Your task to perform on an android device: Open calendar and show me the fourth week of next month Image 0: 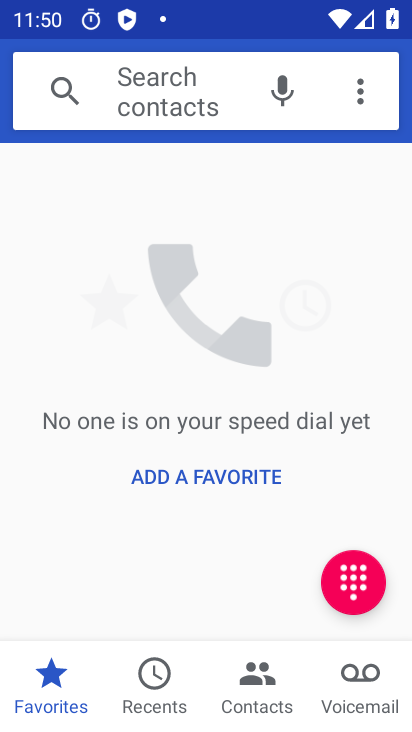
Step 0: press home button
Your task to perform on an android device: Open calendar and show me the fourth week of next month Image 1: 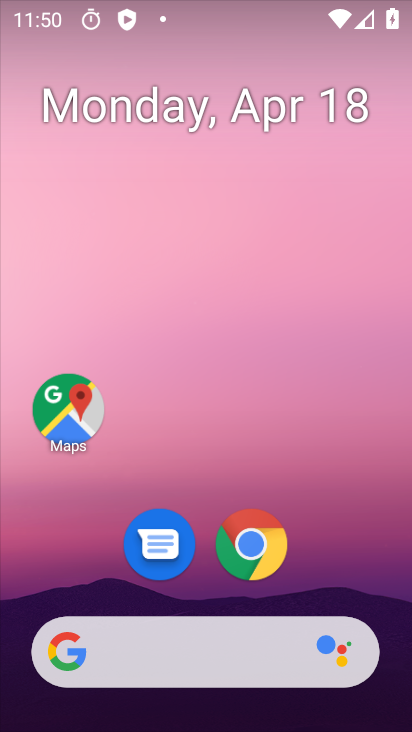
Step 1: drag from (367, 589) to (384, 42)
Your task to perform on an android device: Open calendar and show me the fourth week of next month Image 2: 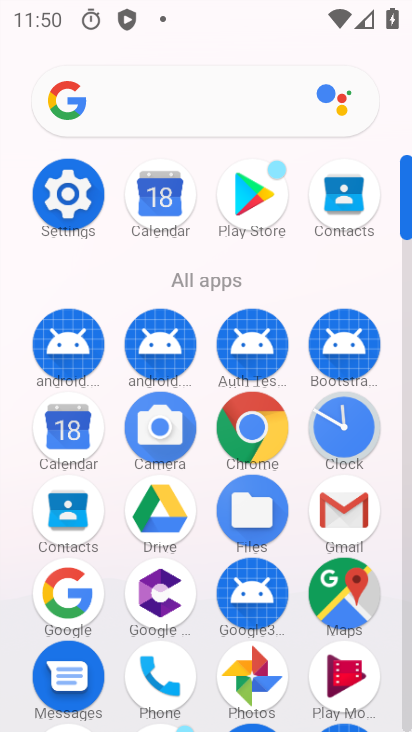
Step 2: click (163, 194)
Your task to perform on an android device: Open calendar and show me the fourth week of next month Image 3: 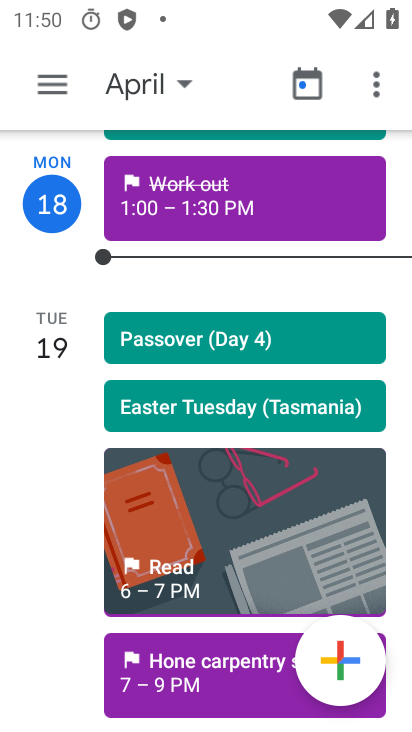
Step 3: click (186, 84)
Your task to perform on an android device: Open calendar and show me the fourth week of next month Image 4: 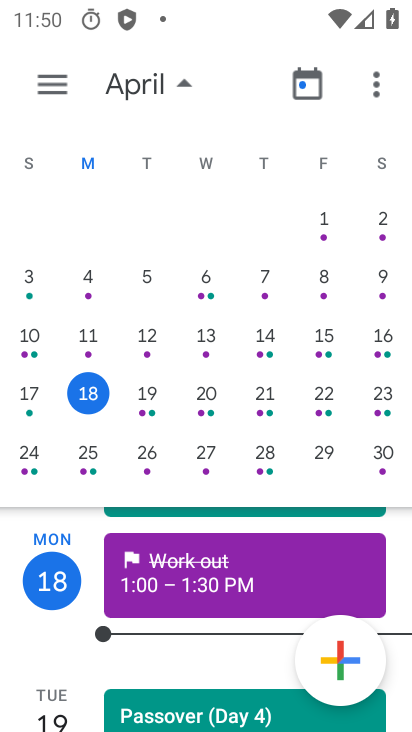
Step 4: drag from (326, 297) to (0, 261)
Your task to perform on an android device: Open calendar and show me the fourth week of next month Image 5: 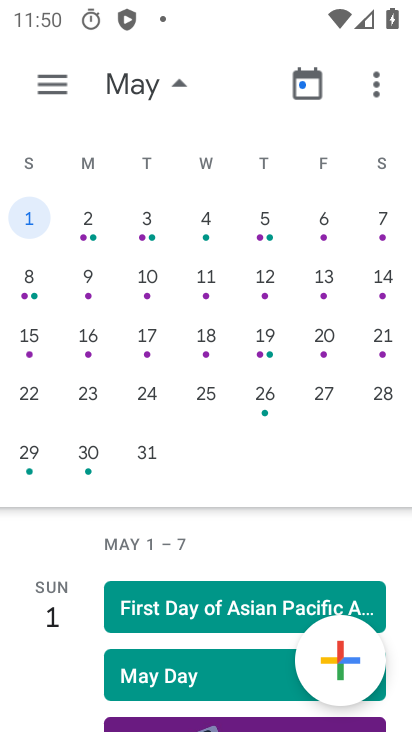
Step 5: click (44, 85)
Your task to perform on an android device: Open calendar and show me the fourth week of next month Image 6: 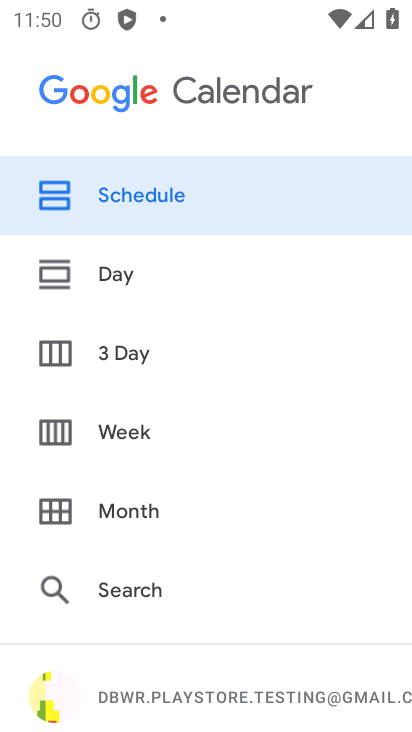
Step 6: click (84, 440)
Your task to perform on an android device: Open calendar and show me the fourth week of next month Image 7: 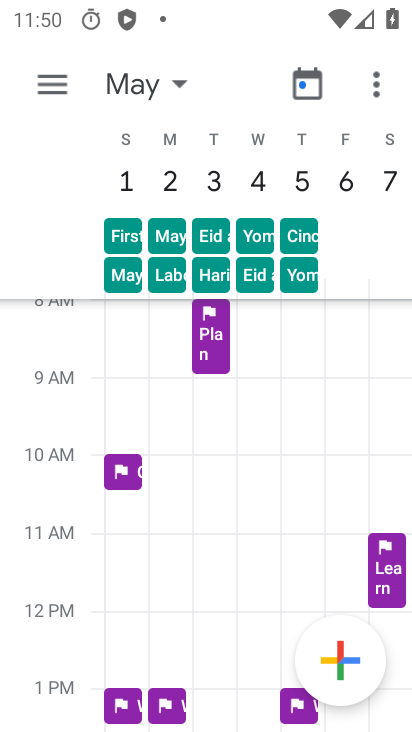
Step 7: task complete